Your task to perform on an android device: set the stopwatch Image 0: 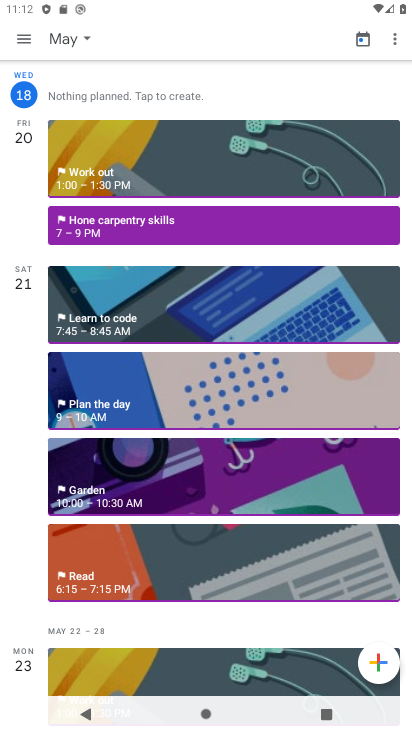
Step 0: press home button
Your task to perform on an android device: set the stopwatch Image 1: 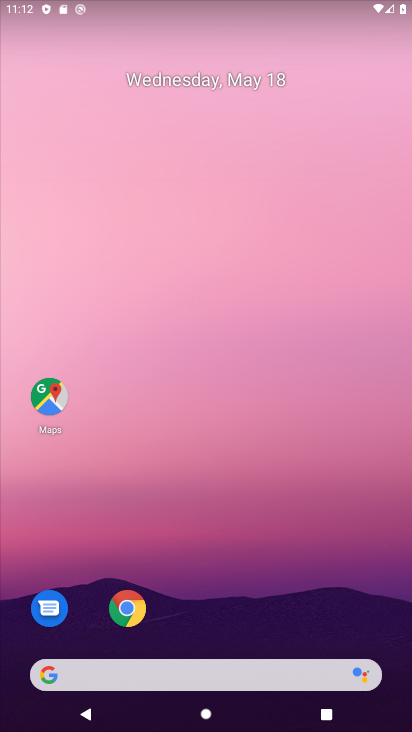
Step 1: drag from (245, 616) to (256, 28)
Your task to perform on an android device: set the stopwatch Image 2: 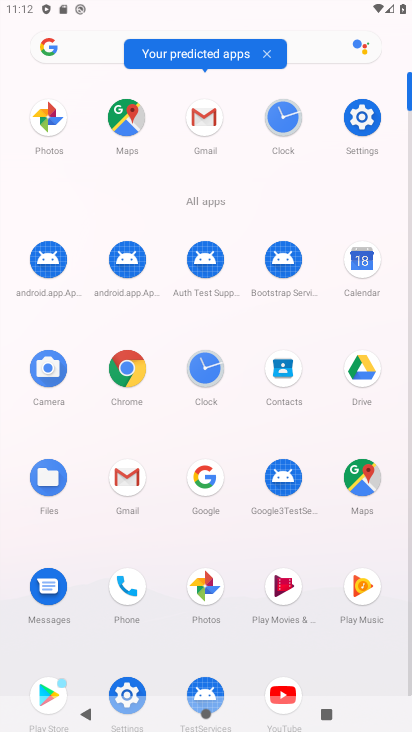
Step 2: click (287, 124)
Your task to perform on an android device: set the stopwatch Image 3: 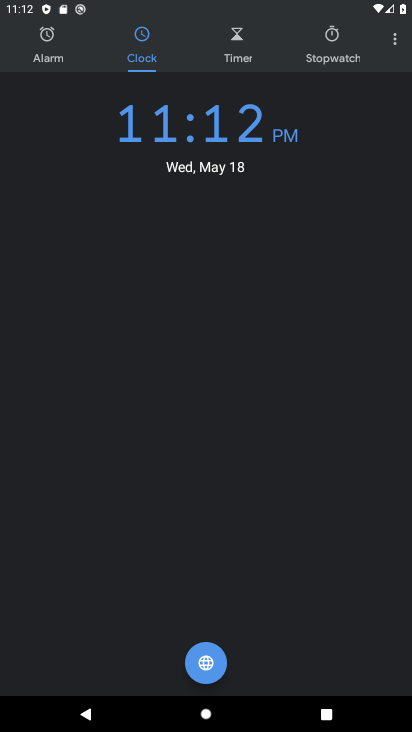
Step 3: click (335, 63)
Your task to perform on an android device: set the stopwatch Image 4: 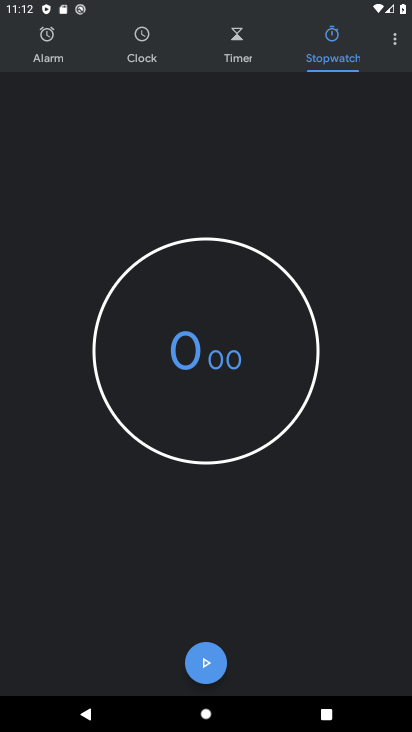
Step 4: click (213, 654)
Your task to perform on an android device: set the stopwatch Image 5: 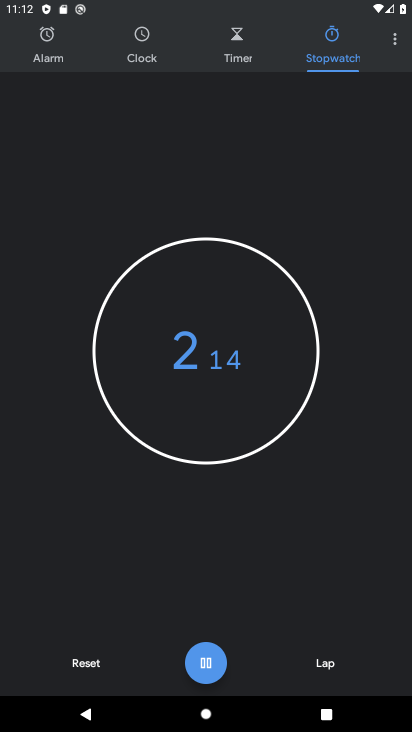
Step 5: task complete